Your task to perform on an android device: Go to eBay Image 0: 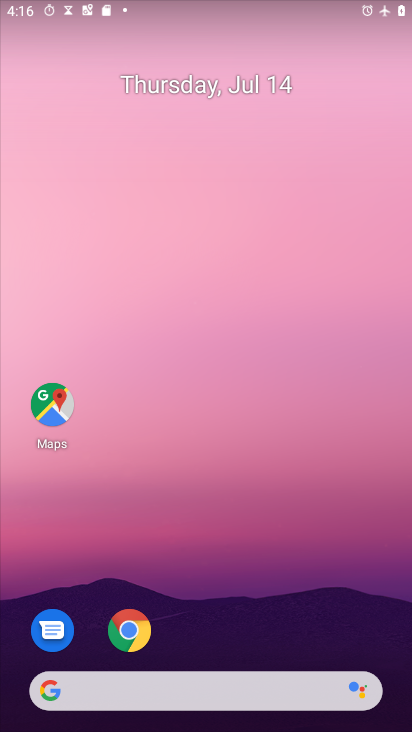
Step 0: click (130, 631)
Your task to perform on an android device: Go to eBay Image 1: 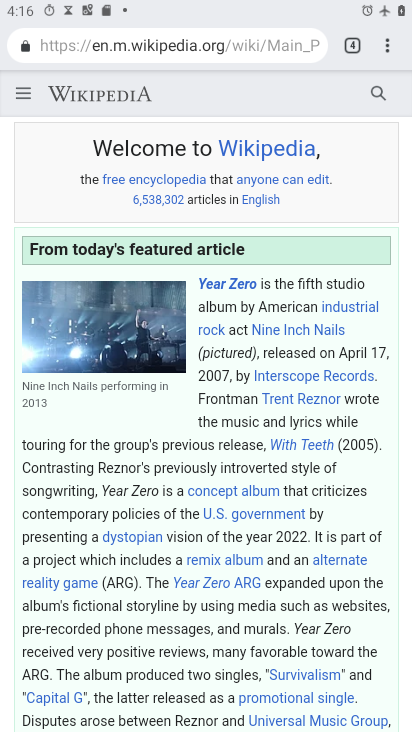
Step 1: click (386, 50)
Your task to perform on an android device: Go to eBay Image 2: 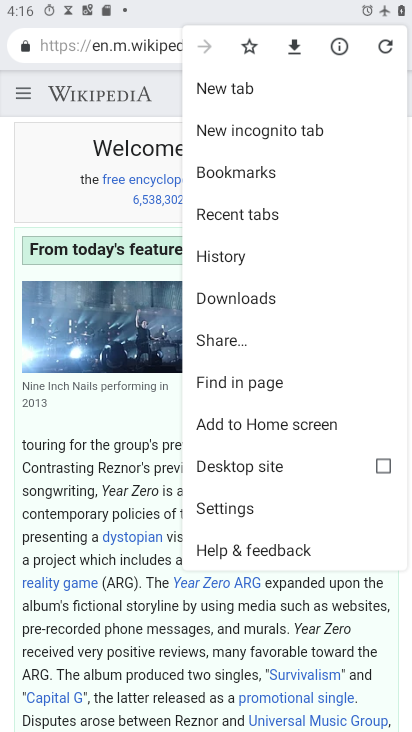
Step 2: click (236, 87)
Your task to perform on an android device: Go to eBay Image 3: 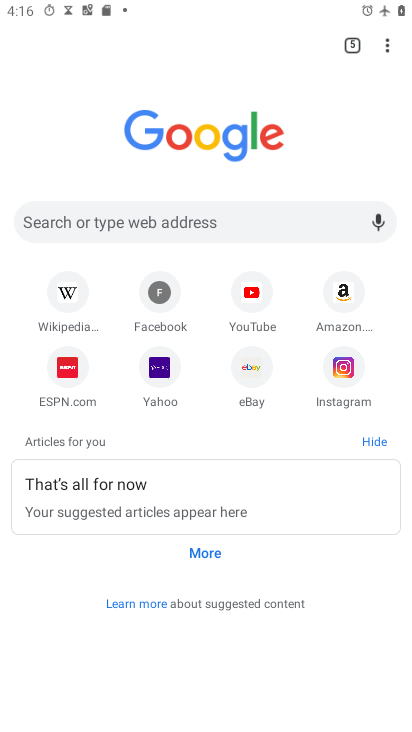
Step 3: click (250, 370)
Your task to perform on an android device: Go to eBay Image 4: 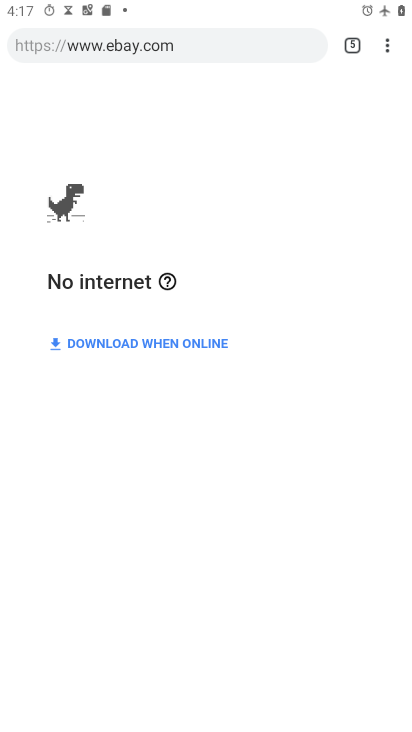
Step 4: task complete